Your task to perform on an android device: clear history in the chrome app Image 0: 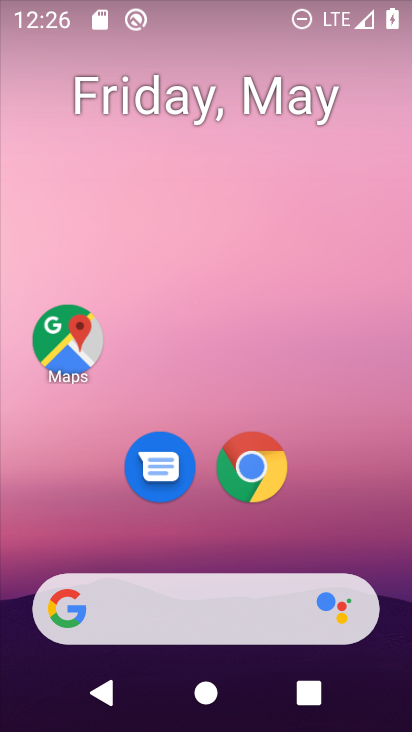
Step 0: drag from (234, 599) to (168, 51)
Your task to perform on an android device: clear history in the chrome app Image 1: 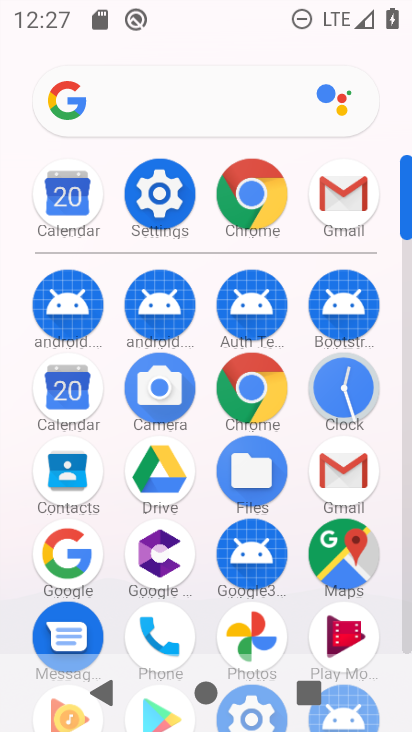
Step 1: click (253, 375)
Your task to perform on an android device: clear history in the chrome app Image 2: 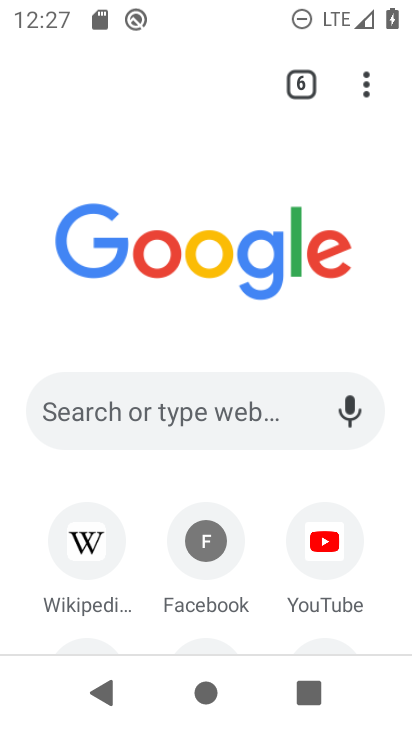
Step 2: click (365, 80)
Your task to perform on an android device: clear history in the chrome app Image 3: 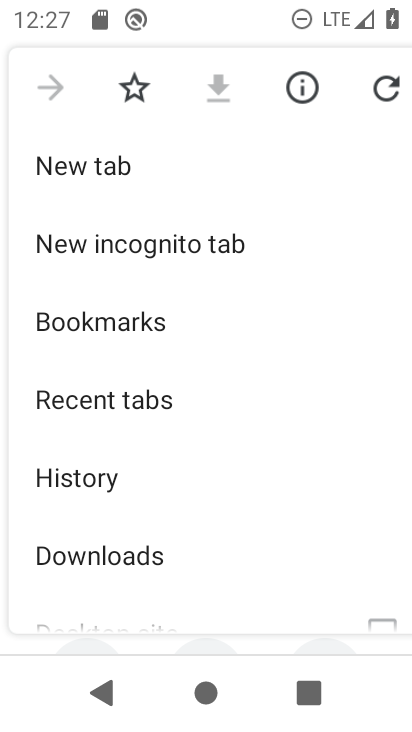
Step 3: drag from (214, 529) to (162, 64)
Your task to perform on an android device: clear history in the chrome app Image 4: 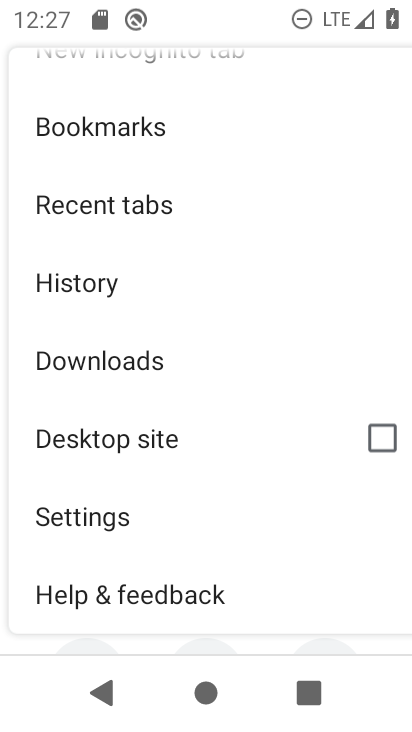
Step 4: click (144, 530)
Your task to perform on an android device: clear history in the chrome app Image 5: 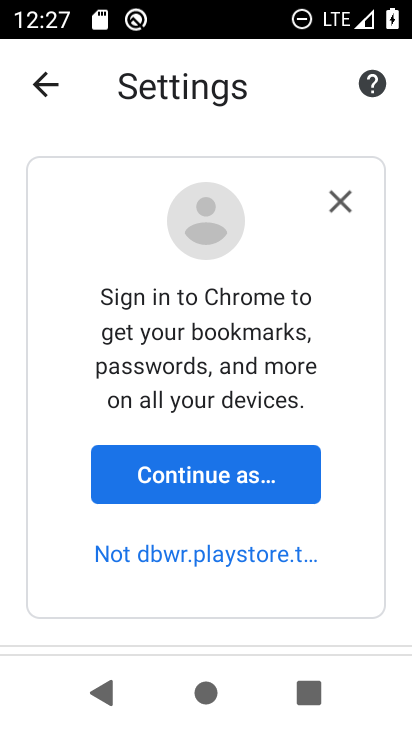
Step 5: press back button
Your task to perform on an android device: clear history in the chrome app Image 6: 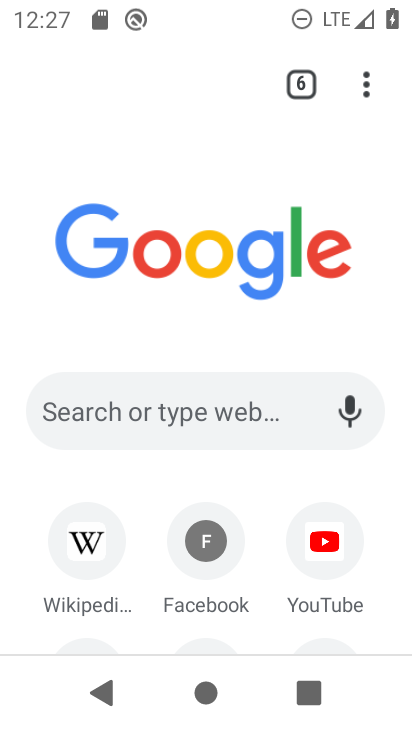
Step 6: click (368, 84)
Your task to perform on an android device: clear history in the chrome app Image 7: 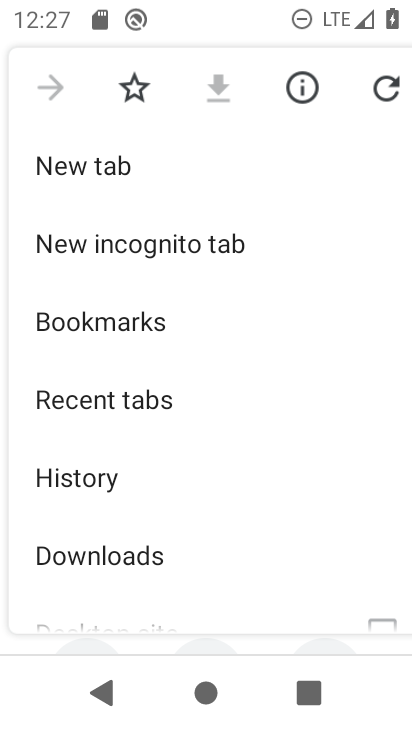
Step 7: click (115, 485)
Your task to perform on an android device: clear history in the chrome app Image 8: 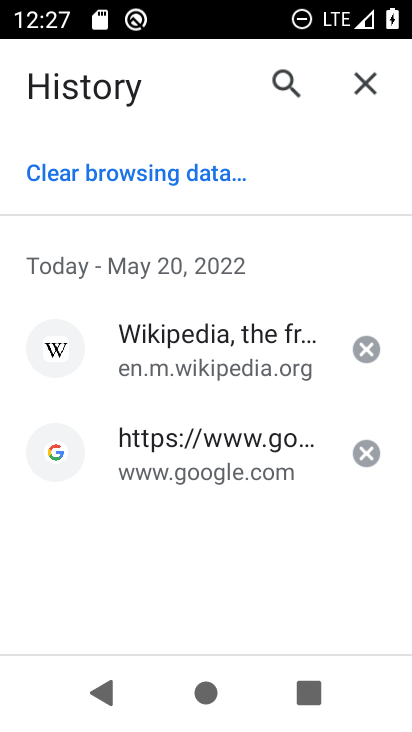
Step 8: click (201, 171)
Your task to perform on an android device: clear history in the chrome app Image 9: 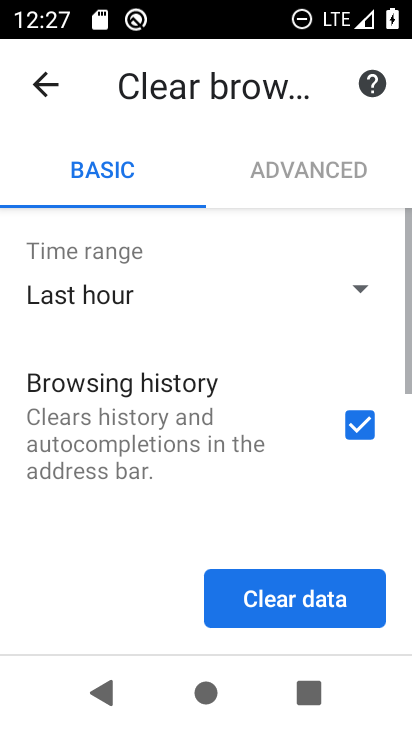
Step 9: click (334, 593)
Your task to perform on an android device: clear history in the chrome app Image 10: 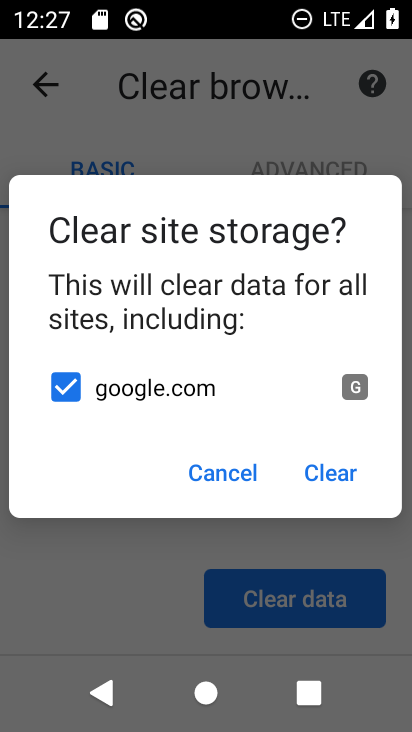
Step 10: click (333, 474)
Your task to perform on an android device: clear history in the chrome app Image 11: 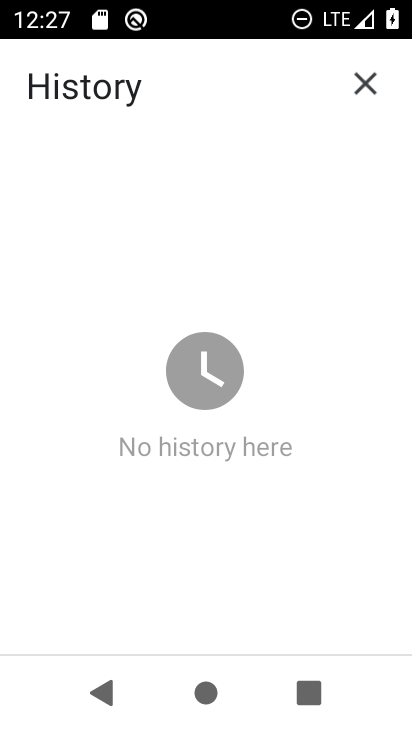
Step 11: task complete